Your task to perform on an android device: change timer sound Image 0: 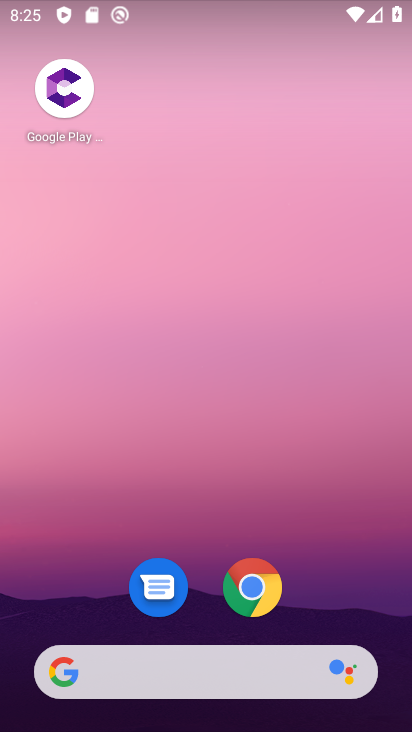
Step 0: drag from (213, 725) to (214, 88)
Your task to perform on an android device: change timer sound Image 1: 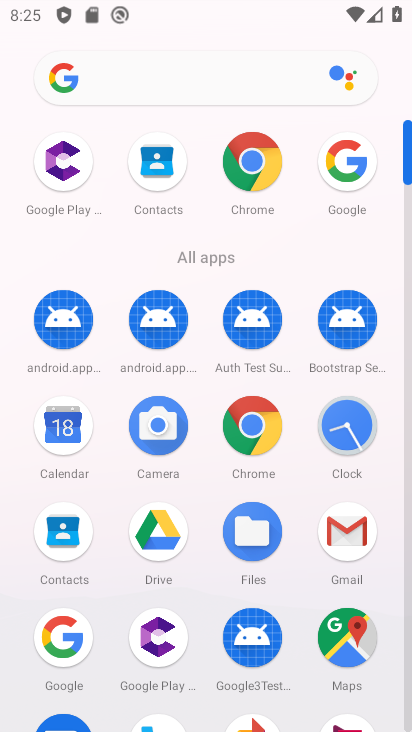
Step 1: click (344, 429)
Your task to perform on an android device: change timer sound Image 2: 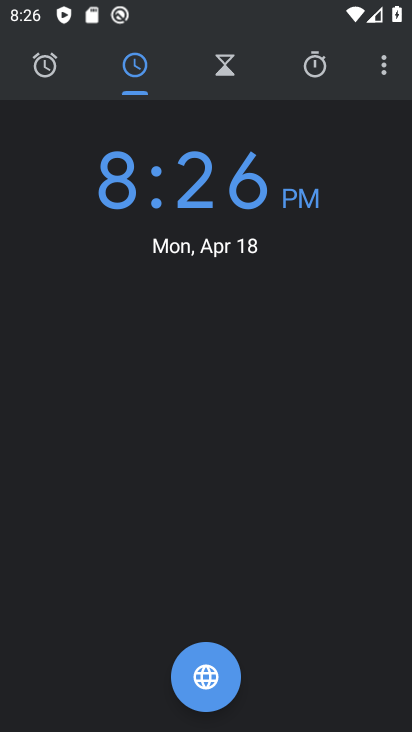
Step 2: click (384, 71)
Your task to perform on an android device: change timer sound Image 3: 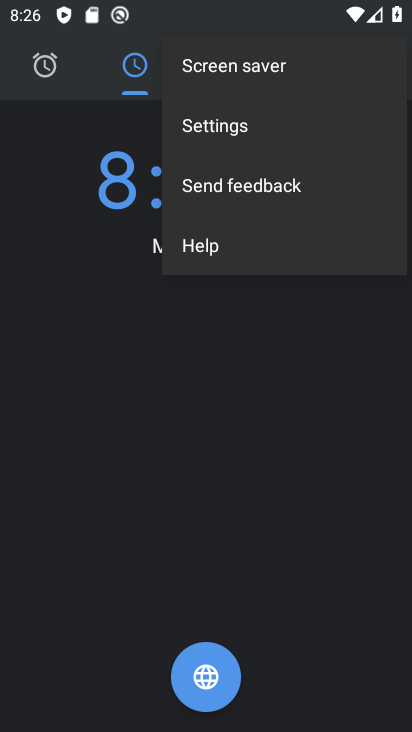
Step 3: click (222, 127)
Your task to perform on an android device: change timer sound Image 4: 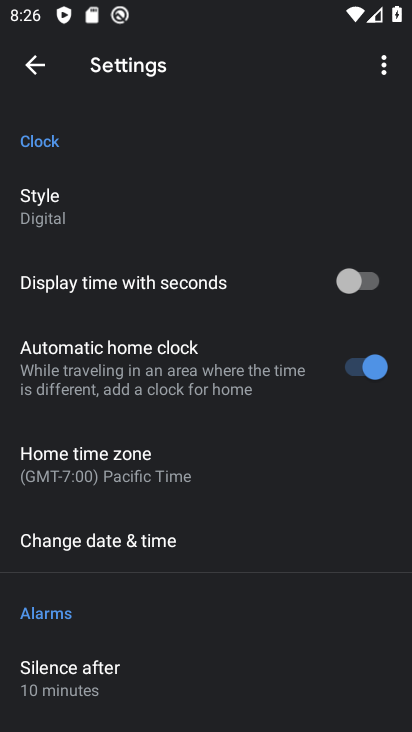
Step 4: drag from (238, 659) to (243, 168)
Your task to perform on an android device: change timer sound Image 5: 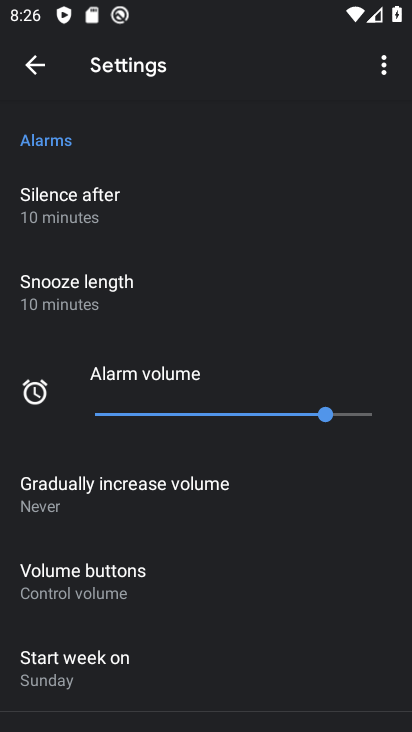
Step 5: drag from (192, 653) to (224, 261)
Your task to perform on an android device: change timer sound Image 6: 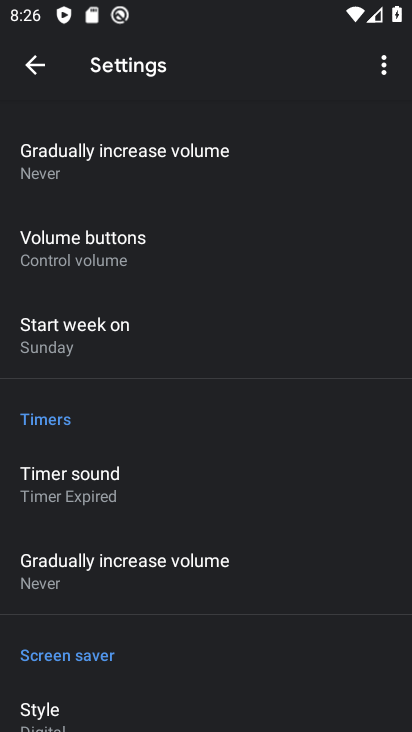
Step 6: click (88, 487)
Your task to perform on an android device: change timer sound Image 7: 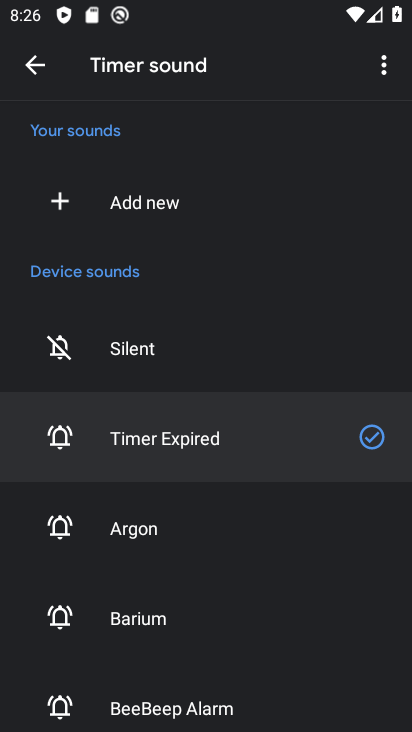
Step 7: click (124, 614)
Your task to perform on an android device: change timer sound Image 8: 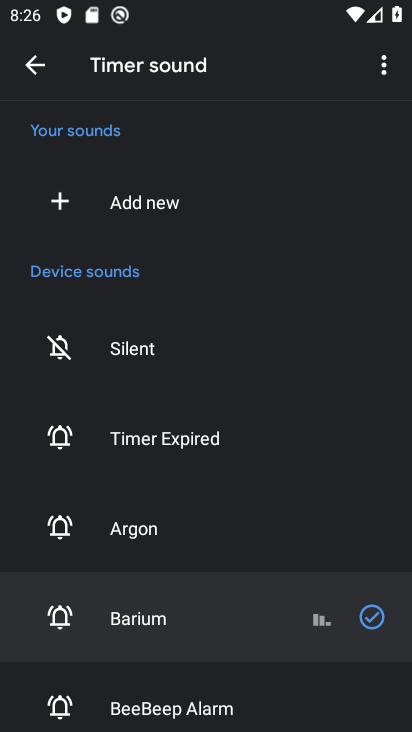
Step 8: task complete